Your task to perform on an android device: Show me popular games on the Play Store Image 0: 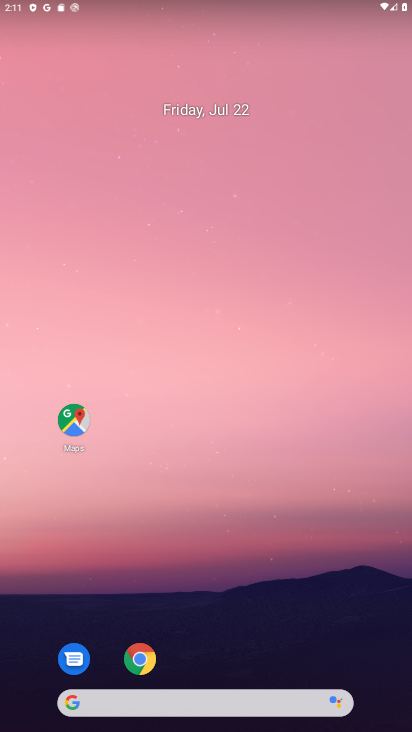
Step 0: drag from (161, 554) to (132, 11)
Your task to perform on an android device: Show me popular games on the Play Store Image 1: 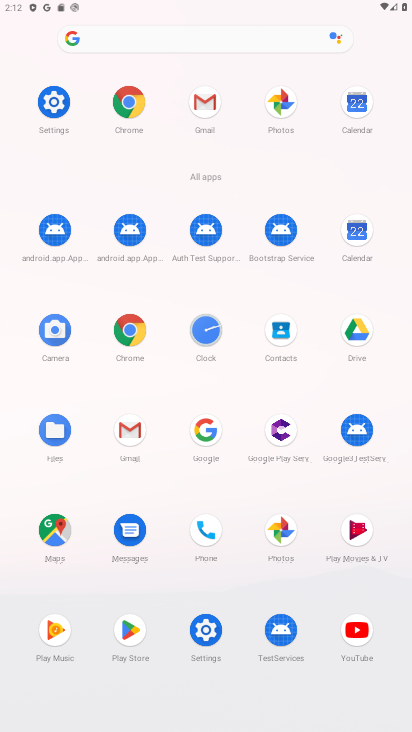
Step 1: click (127, 636)
Your task to perform on an android device: Show me popular games on the Play Store Image 2: 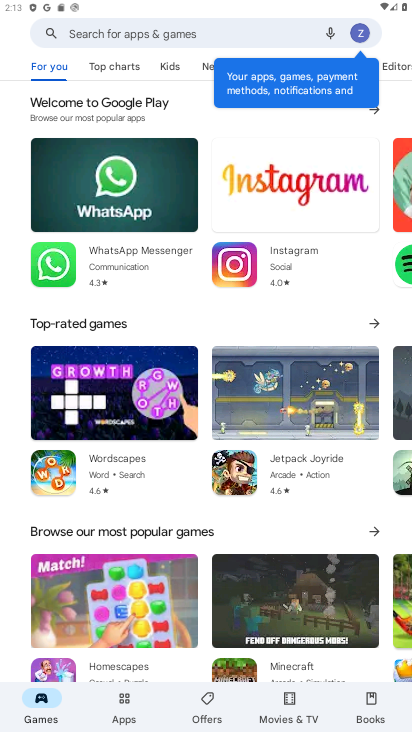
Step 2: task complete